Your task to perform on an android device: turn pop-ups off in chrome Image 0: 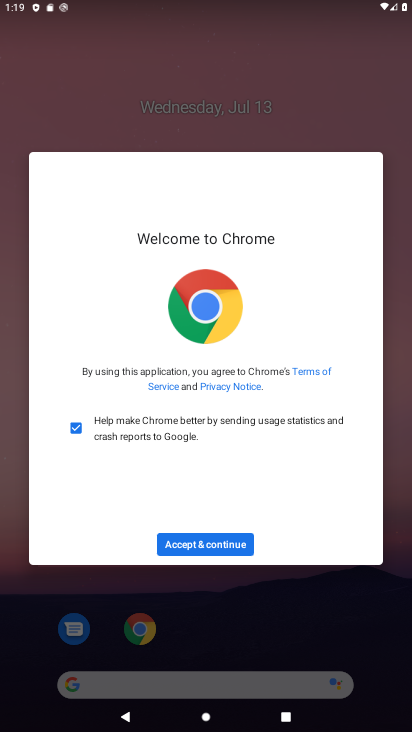
Step 0: click (185, 537)
Your task to perform on an android device: turn pop-ups off in chrome Image 1: 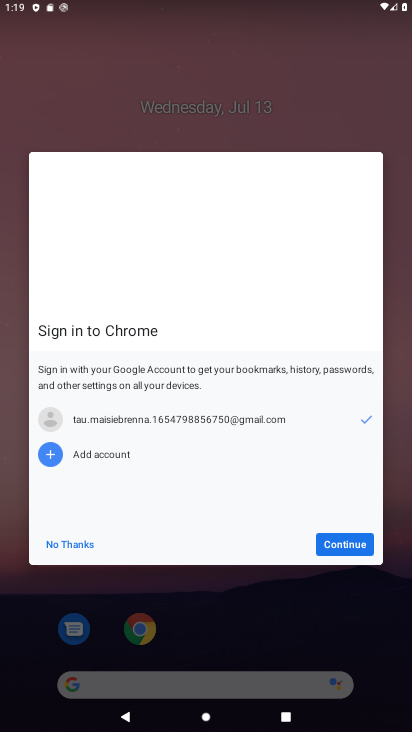
Step 1: click (352, 548)
Your task to perform on an android device: turn pop-ups off in chrome Image 2: 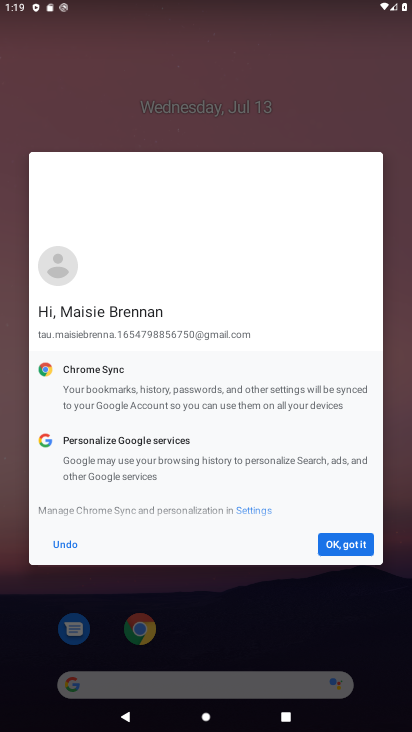
Step 2: click (352, 548)
Your task to perform on an android device: turn pop-ups off in chrome Image 3: 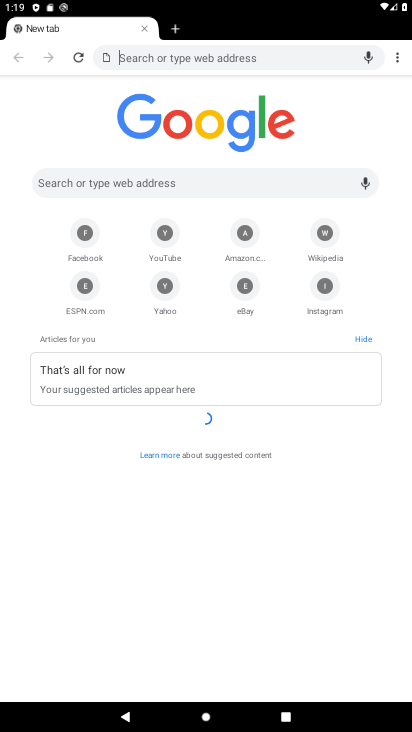
Step 3: click (395, 57)
Your task to perform on an android device: turn pop-ups off in chrome Image 4: 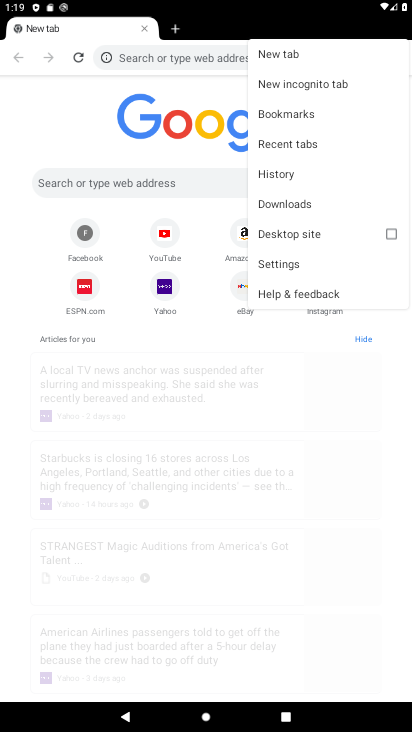
Step 4: click (305, 257)
Your task to perform on an android device: turn pop-ups off in chrome Image 5: 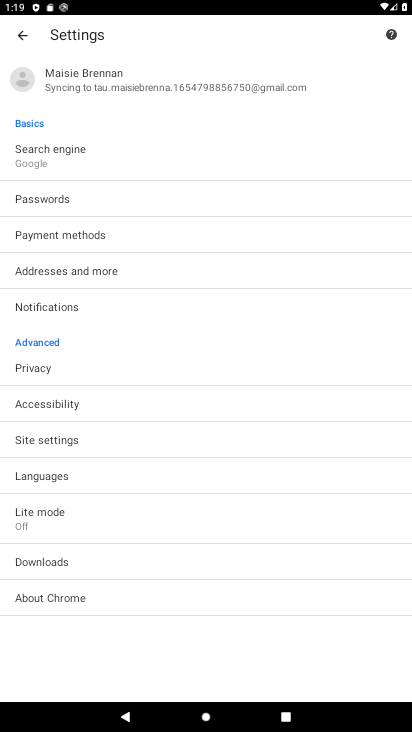
Step 5: click (152, 442)
Your task to perform on an android device: turn pop-ups off in chrome Image 6: 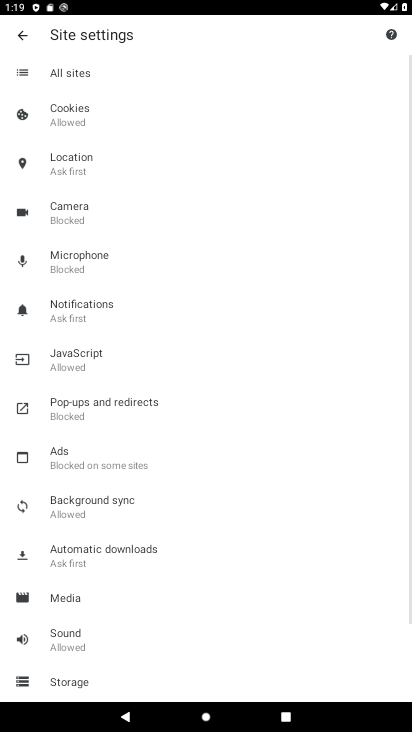
Step 6: click (190, 407)
Your task to perform on an android device: turn pop-ups off in chrome Image 7: 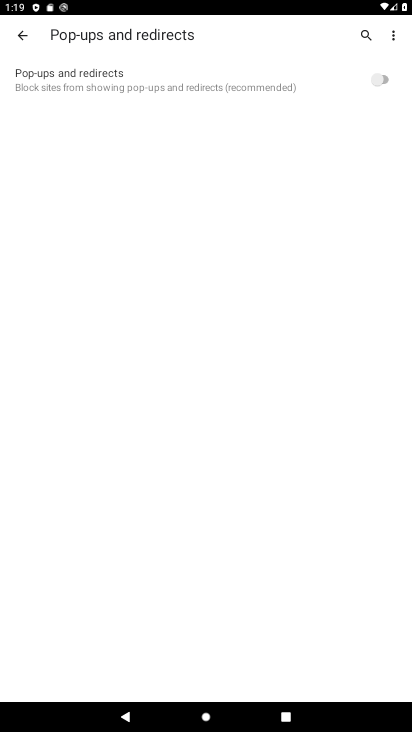
Step 7: click (380, 79)
Your task to perform on an android device: turn pop-ups off in chrome Image 8: 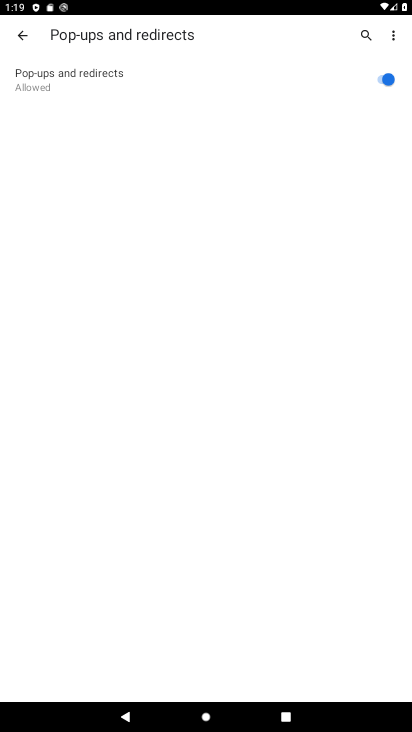
Step 8: task complete